Your task to perform on an android device: Show me popular games on the Play Store Image 0: 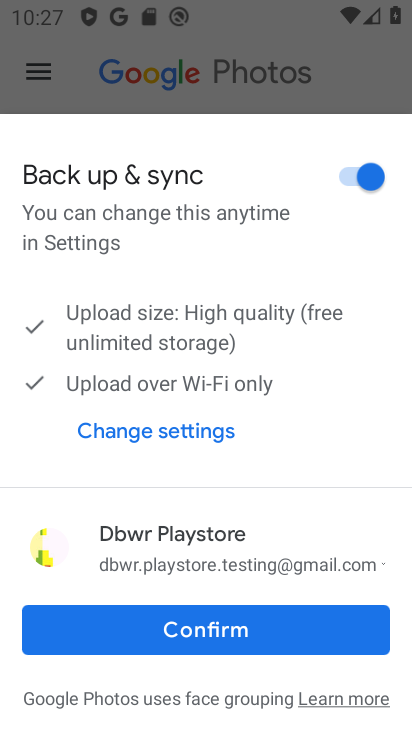
Step 0: press back button
Your task to perform on an android device: Show me popular games on the Play Store Image 1: 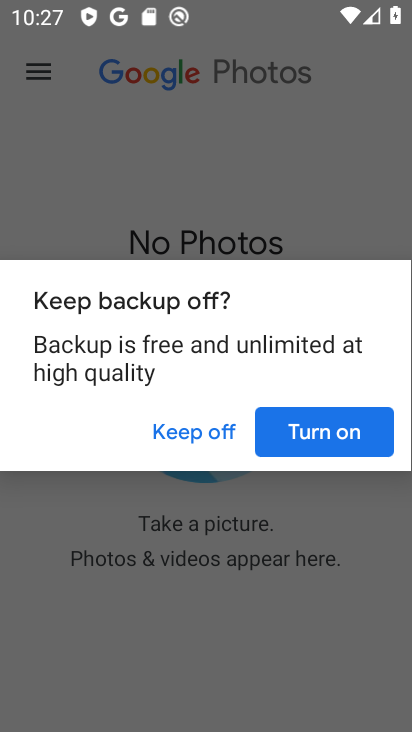
Step 1: press home button
Your task to perform on an android device: Show me popular games on the Play Store Image 2: 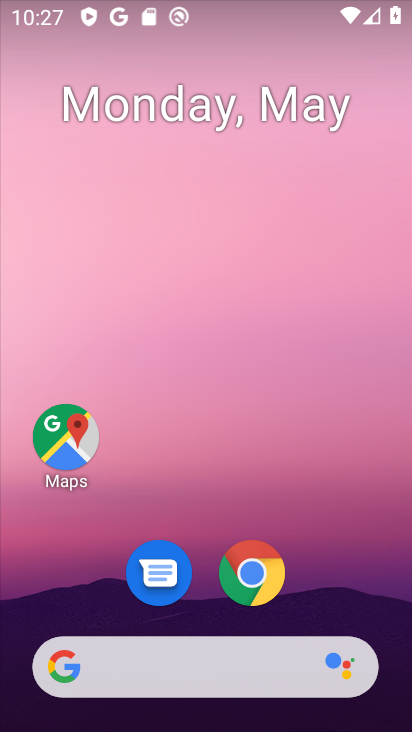
Step 2: drag from (175, 611) to (270, 92)
Your task to perform on an android device: Show me popular games on the Play Store Image 3: 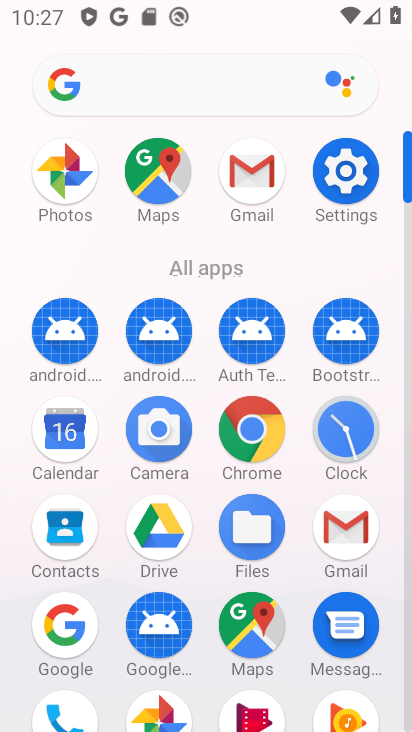
Step 3: drag from (217, 606) to (269, 203)
Your task to perform on an android device: Show me popular games on the Play Store Image 4: 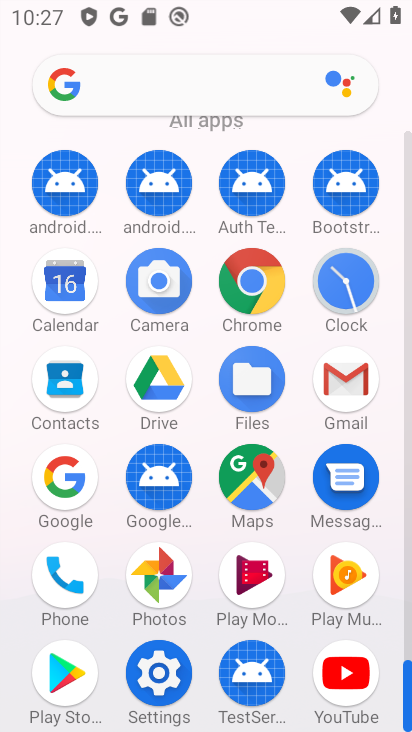
Step 4: click (55, 678)
Your task to perform on an android device: Show me popular games on the Play Store Image 5: 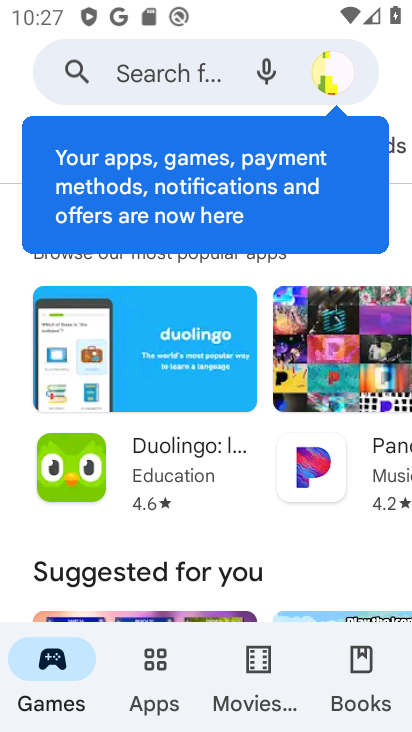
Step 5: drag from (248, 501) to (251, 147)
Your task to perform on an android device: Show me popular games on the Play Store Image 6: 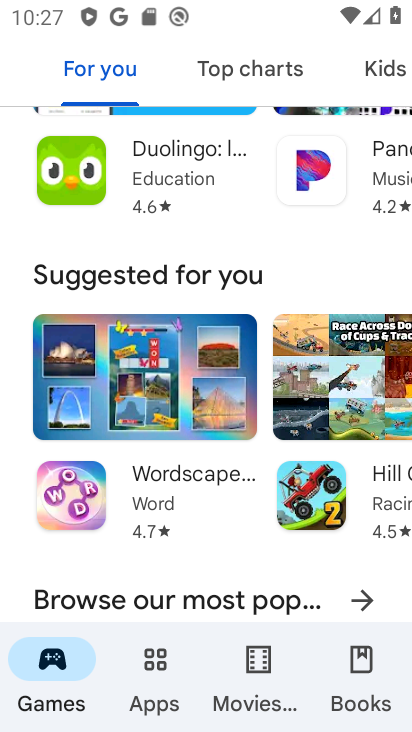
Step 6: click (351, 604)
Your task to perform on an android device: Show me popular games on the Play Store Image 7: 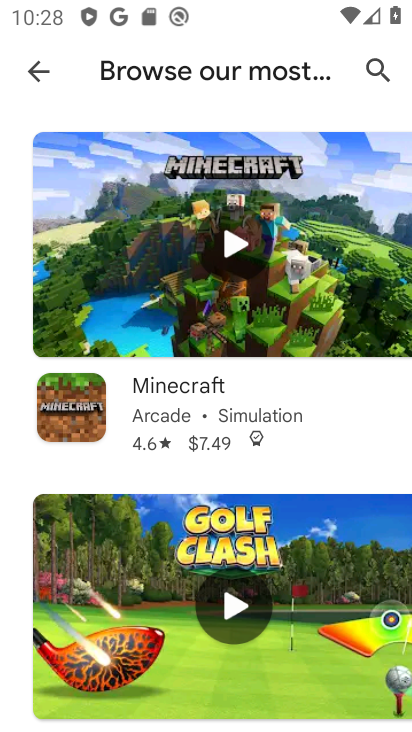
Step 7: task complete